Your task to perform on an android device: turn on translation in the chrome app Image 0: 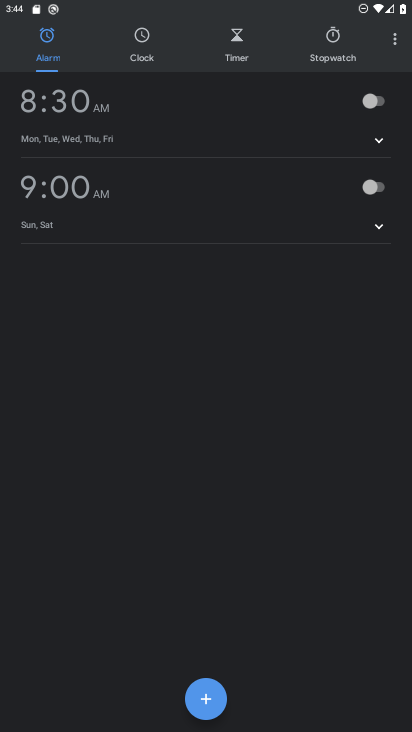
Step 0: press home button
Your task to perform on an android device: turn on translation in the chrome app Image 1: 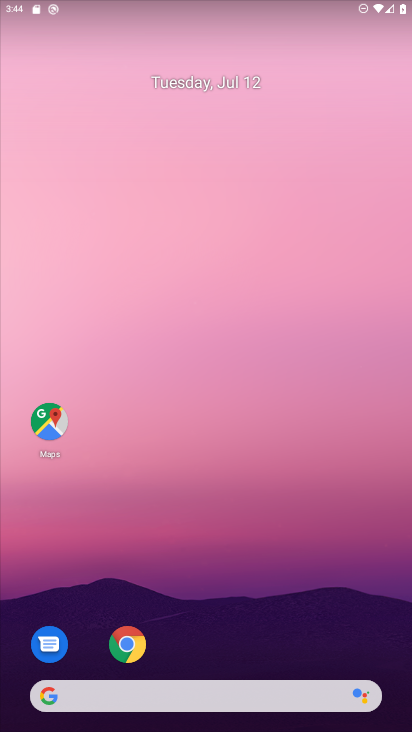
Step 1: drag from (238, 645) to (235, 91)
Your task to perform on an android device: turn on translation in the chrome app Image 2: 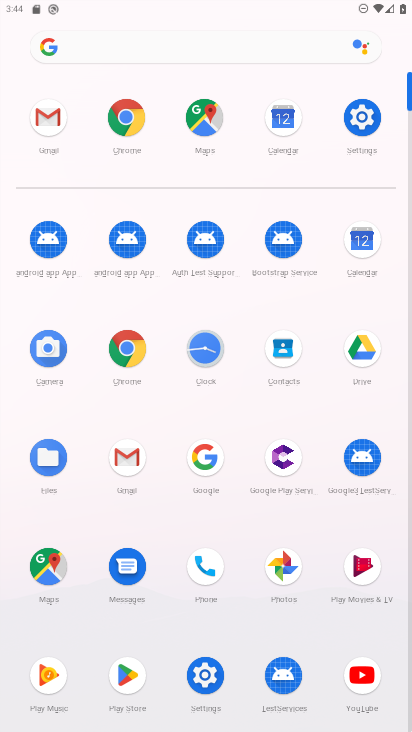
Step 2: click (128, 350)
Your task to perform on an android device: turn on translation in the chrome app Image 3: 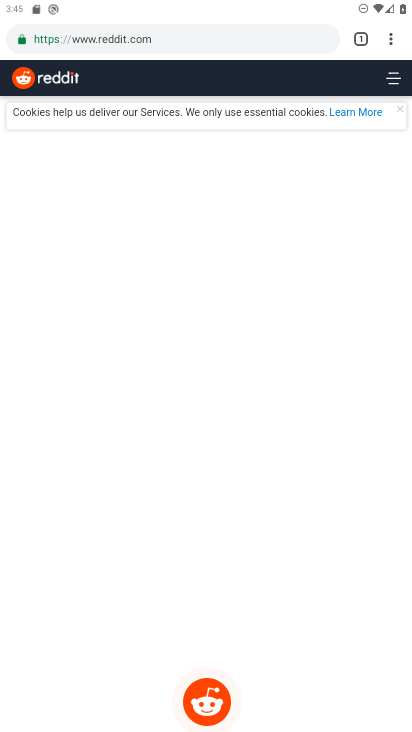
Step 3: drag from (391, 33) to (254, 467)
Your task to perform on an android device: turn on translation in the chrome app Image 4: 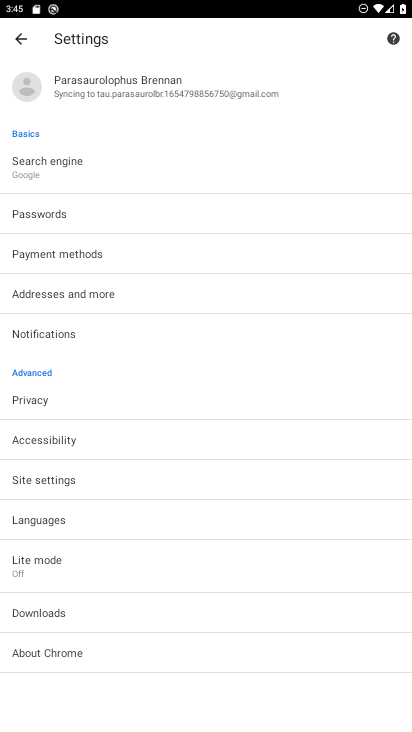
Step 4: click (74, 517)
Your task to perform on an android device: turn on translation in the chrome app Image 5: 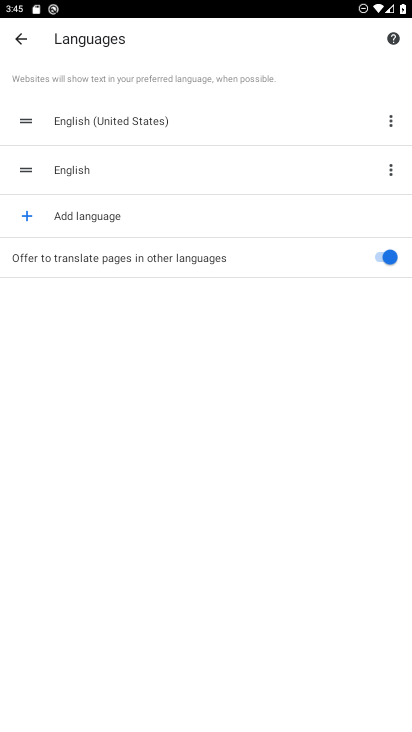
Step 5: task complete